Your task to perform on an android device: Open CNN.com Image 0: 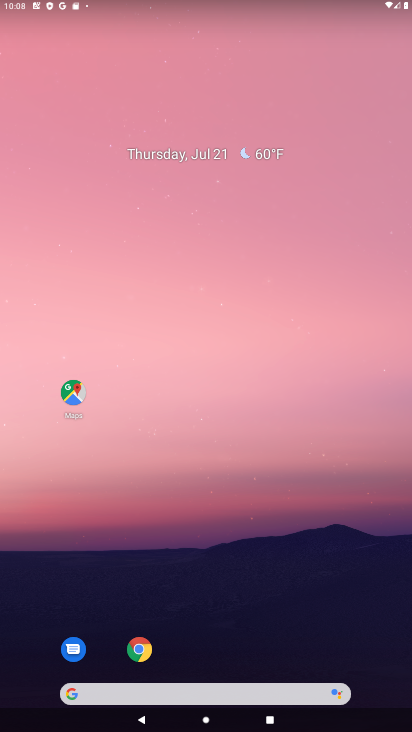
Step 0: click (140, 649)
Your task to perform on an android device: Open CNN.com Image 1: 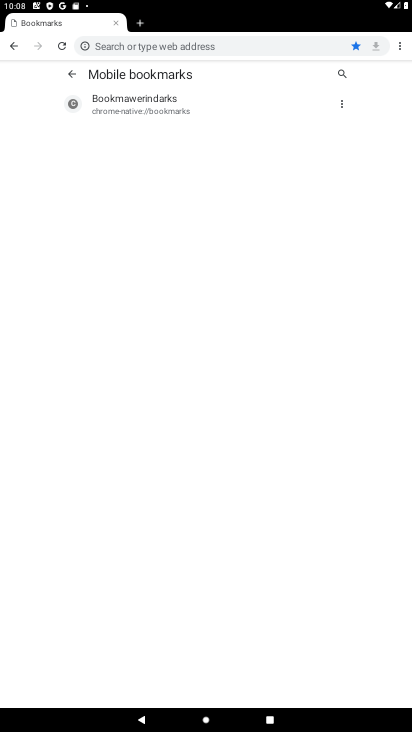
Step 1: click (254, 45)
Your task to perform on an android device: Open CNN.com Image 2: 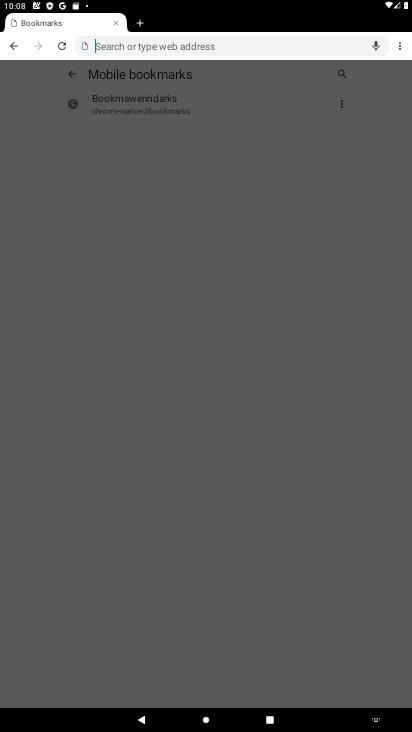
Step 2: type "CNN.com"
Your task to perform on an android device: Open CNN.com Image 3: 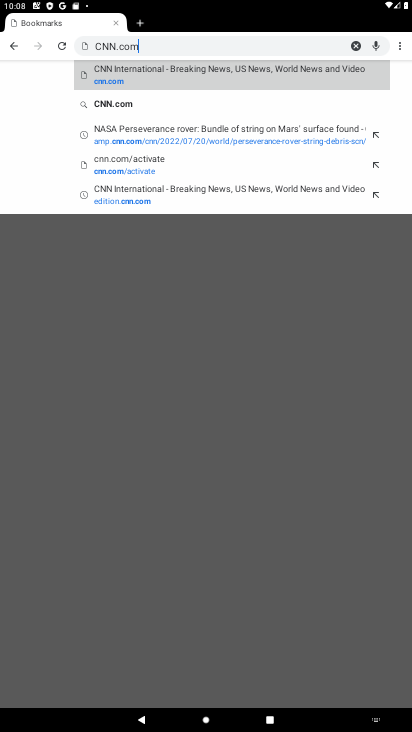
Step 3: click (130, 102)
Your task to perform on an android device: Open CNN.com Image 4: 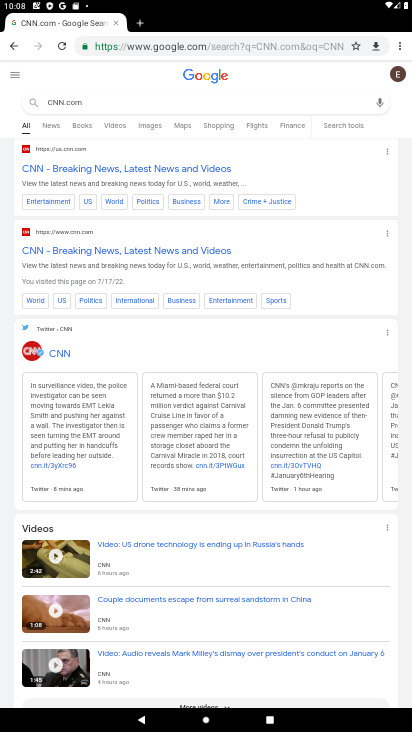
Step 4: click (139, 165)
Your task to perform on an android device: Open CNN.com Image 5: 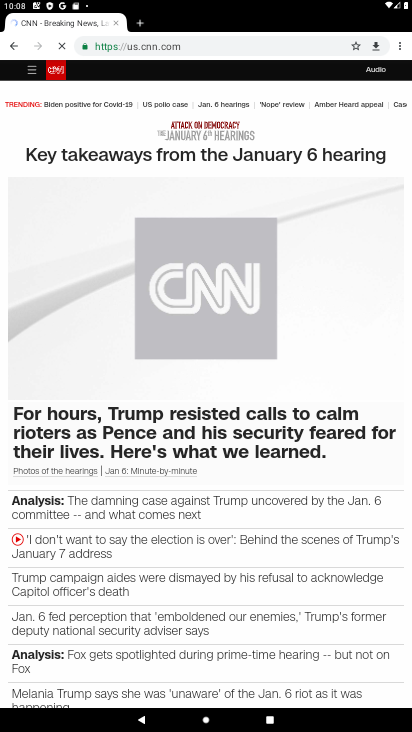
Step 5: task complete